Your task to perform on an android device: Open settings Image 0: 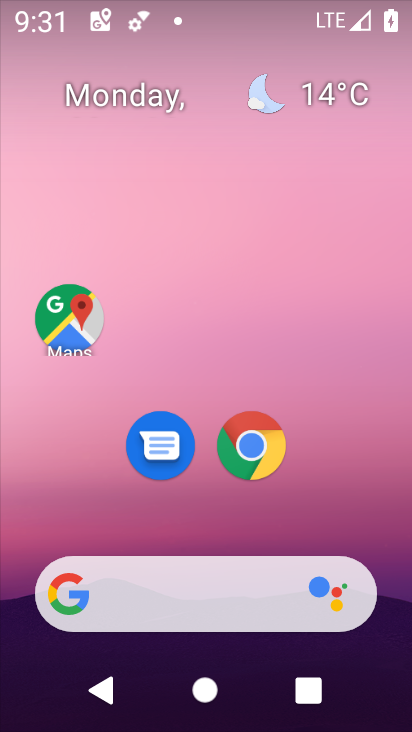
Step 0: drag from (213, 514) to (260, 46)
Your task to perform on an android device: Open settings Image 1: 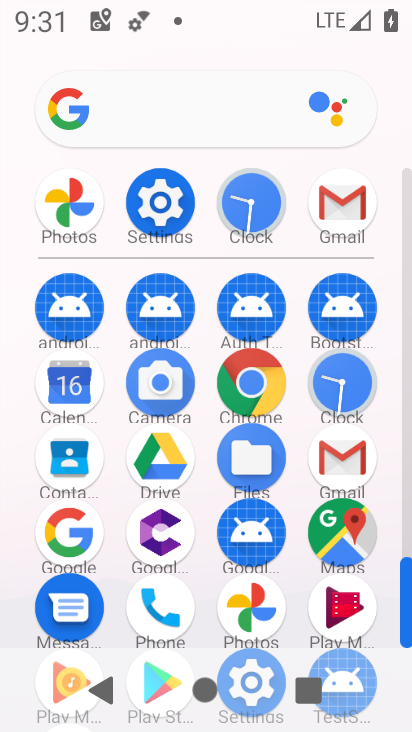
Step 1: click (157, 195)
Your task to perform on an android device: Open settings Image 2: 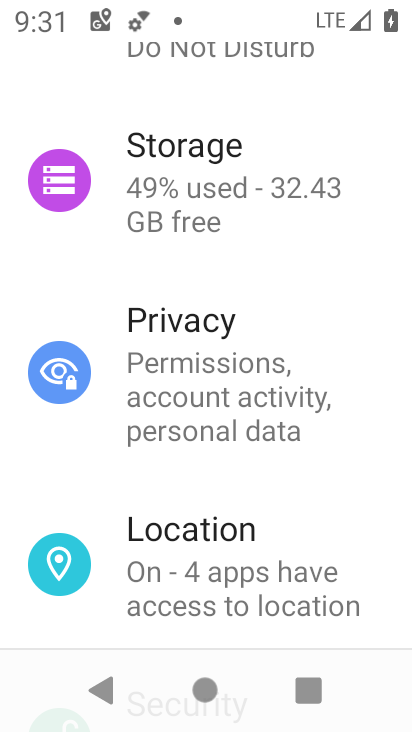
Step 2: task complete